Your task to perform on an android device: set the timer Image 0: 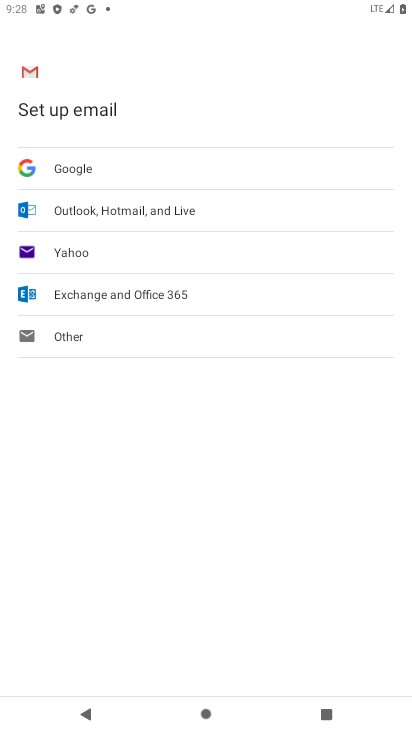
Step 0: press home button
Your task to perform on an android device: set the timer Image 1: 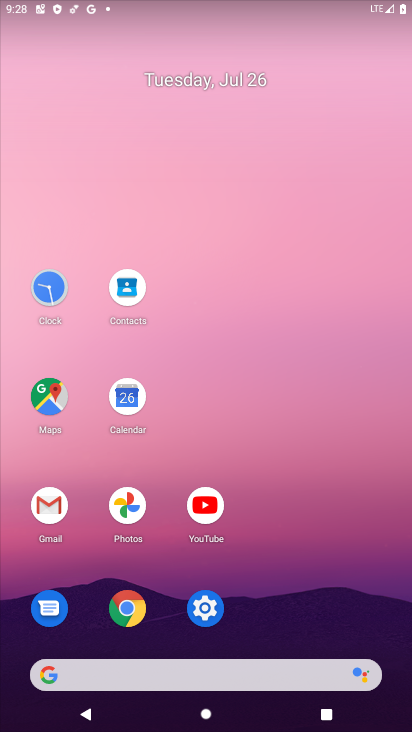
Step 1: click (44, 282)
Your task to perform on an android device: set the timer Image 2: 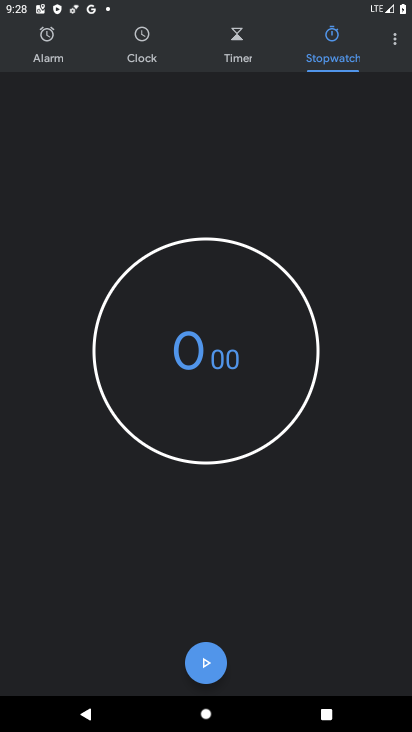
Step 2: click (228, 35)
Your task to perform on an android device: set the timer Image 3: 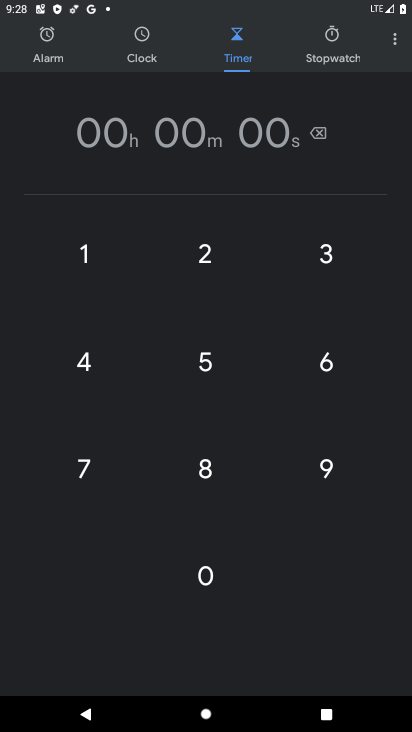
Step 3: click (79, 257)
Your task to perform on an android device: set the timer Image 4: 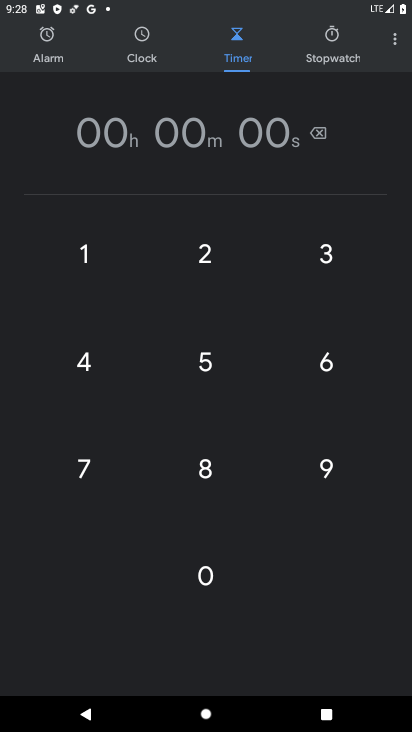
Step 4: click (79, 257)
Your task to perform on an android device: set the timer Image 5: 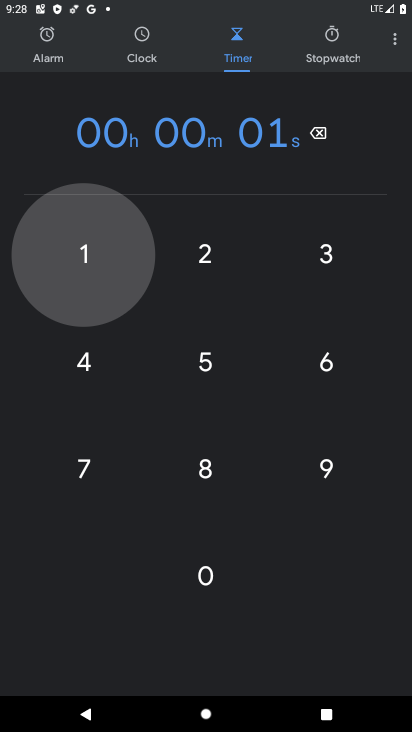
Step 5: click (79, 257)
Your task to perform on an android device: set the timer Image 6: 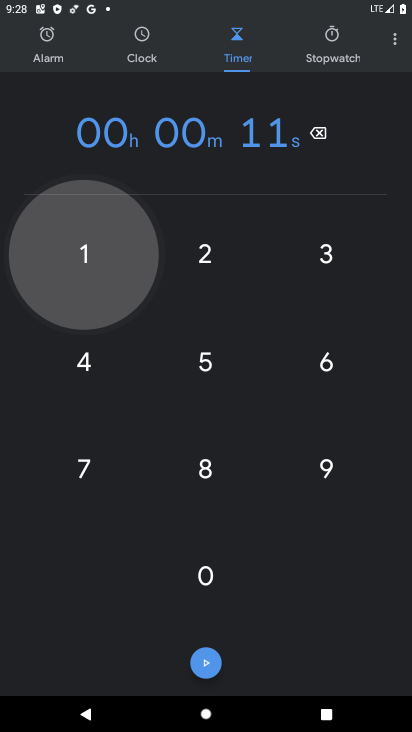
Step 6: click (79, 257)
Your task to perform on an android device: set the timer Image 7: 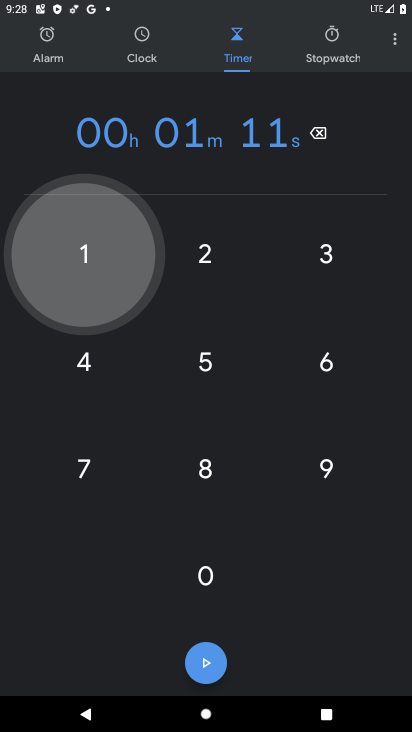
Step 7: click (79, 257)
Your task to perform on an android device: set the timer Image 8: 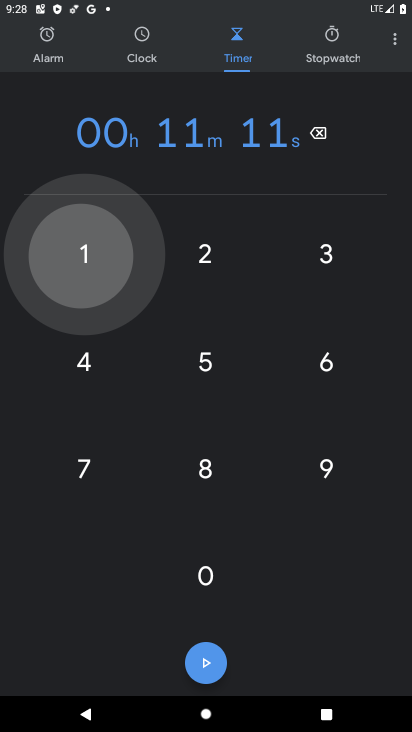
Step 8: click (79, 257)
Your task to perform on an android device: set the timer Image 9: 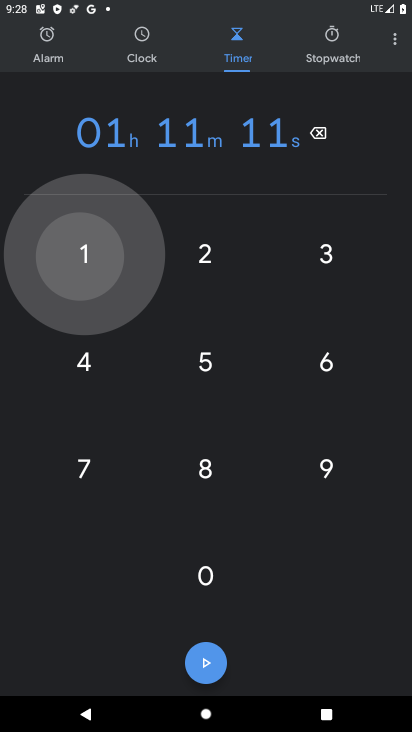
Step 9: click (79, 257)
Your task to perform on an android device: set the timer Image 10: 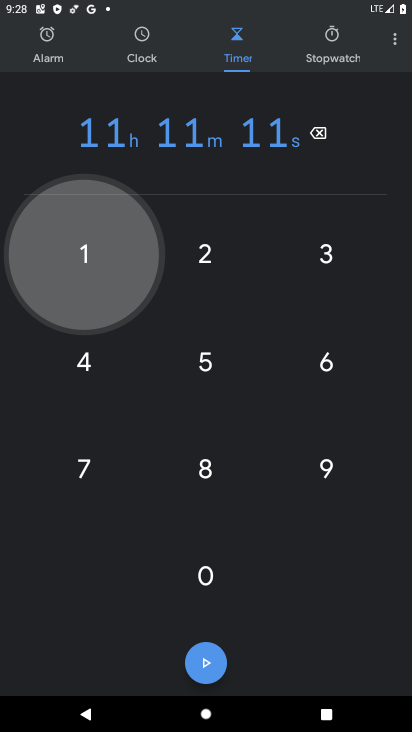
Step 10: click (79, 257)
Your task to perform on an android device: set the timer Image 11: 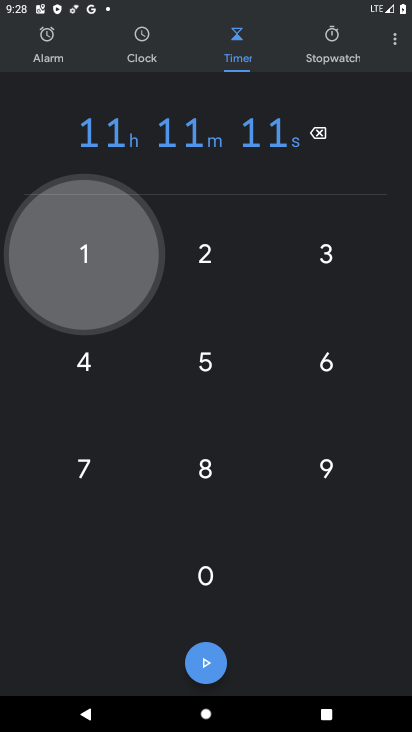
Step 11: click (79, 257)
Your task to perform on an android device: set the timer Image 12: 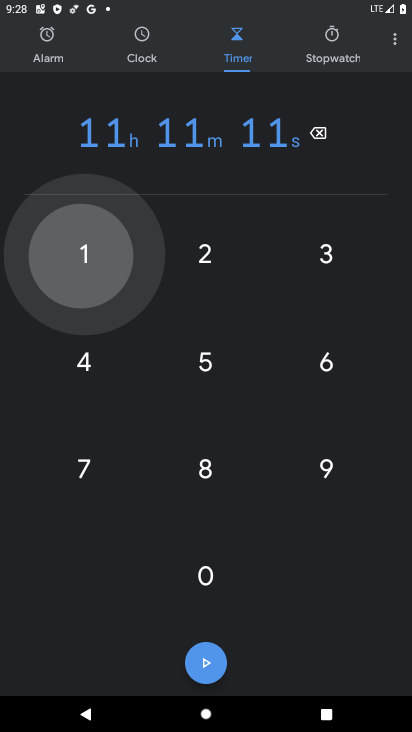
Step 12: click (79, 257)
Your task to perform on an android device: set the timer Image 13: 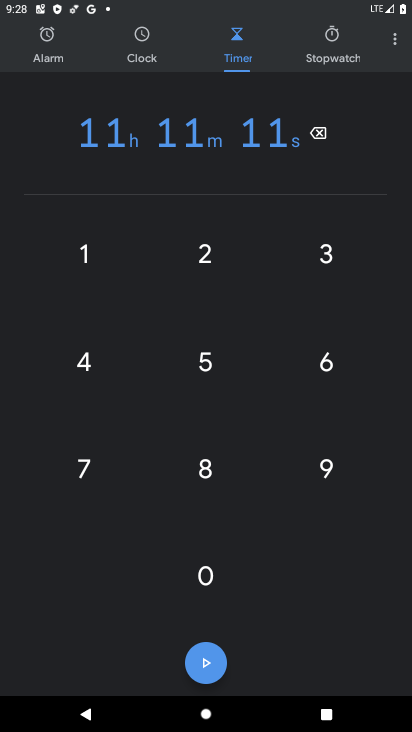
Step 13: task complete